Your task to perform on an android device: turn pop-ups on in chrome Image 0: 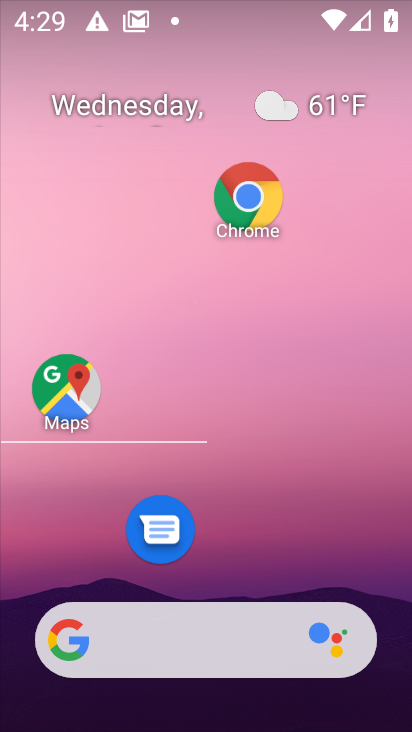
Step 0: drag from (262, 36) to (223, 0)
Your task to perform on an android device: turn pop-ups on in chrome Image 1: 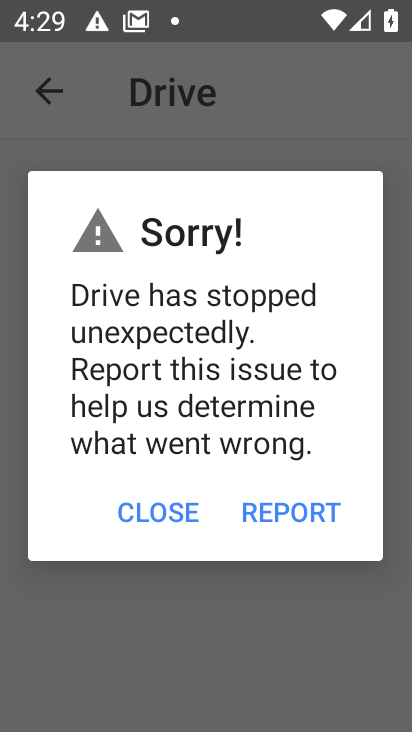
Step 1: press home button
Your task to perform on an android device: turn pop-ups on in chrome Image 2: 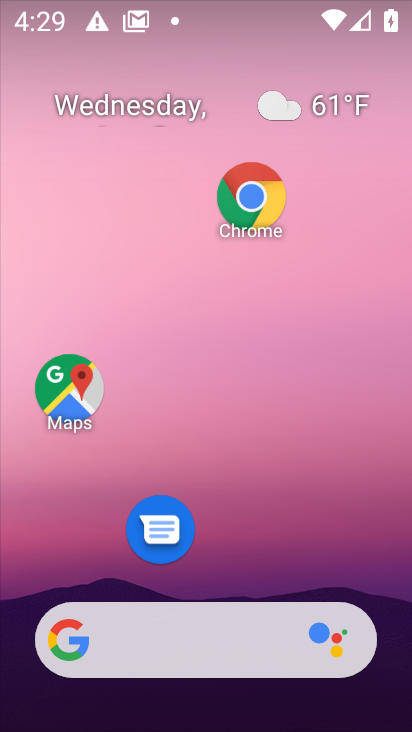
Step 2: click (267, 217)
Your task to perform on an android device: turn pop-ups on in chrome Image 3: 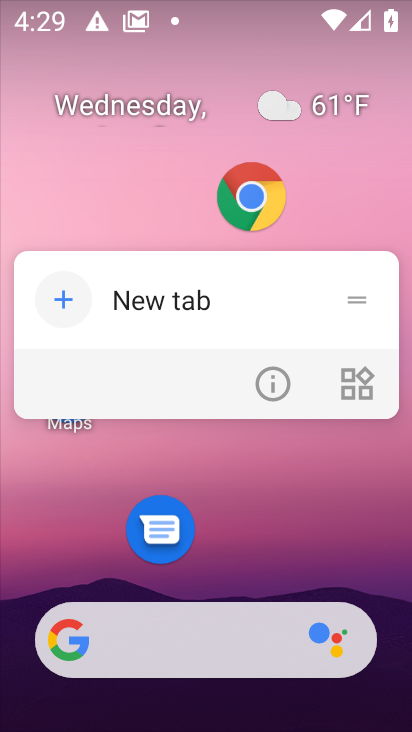
Step 3: click (249, 207)
Your task to perform on an android device: turn pop-ups on in chrome Image 4: 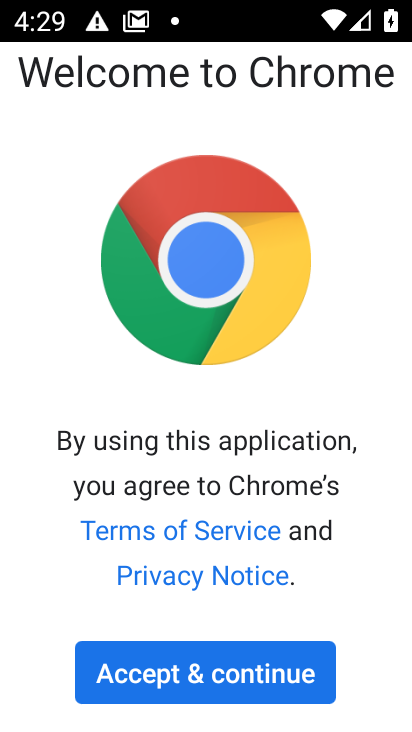
Step 4: click (267, 679)
Your task to perform on an android device: turn pop-ups on in chrome Image 5: 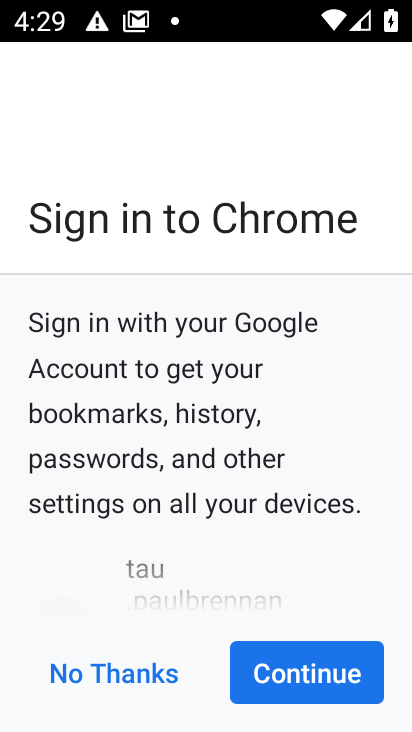
Step 5: click (267, 666)
Your task to perform on an android device: turn pop-ups on in chrome Image 6: 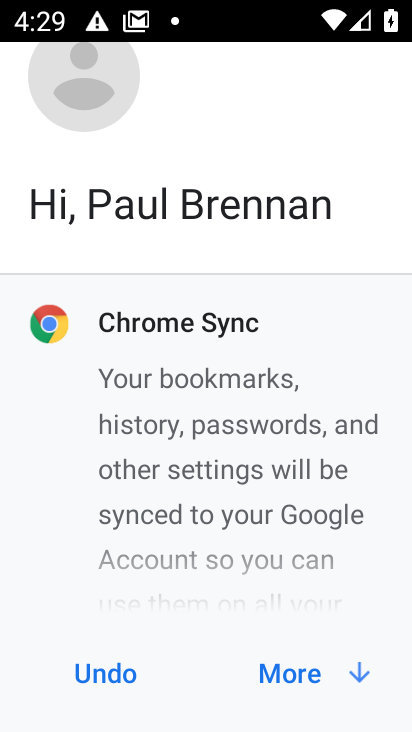
Step 6: click (316, 669)
Your task to perform on an android device: turn pop-ups on in chrome Image 7: 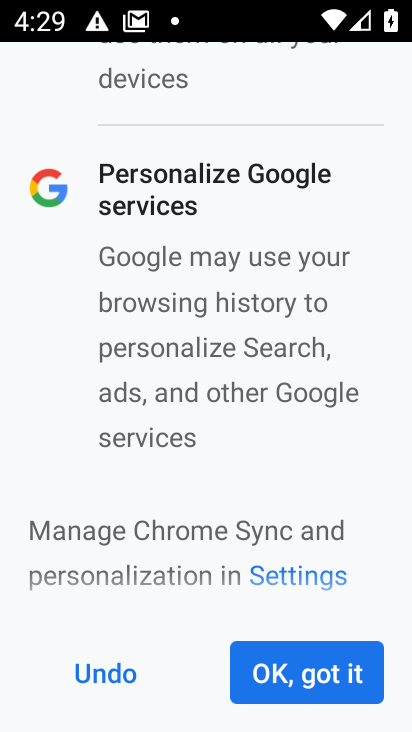
Step 7: click (316, 669)
Your task to perform on an android device: turn pop-ups on in chrome Image 8: 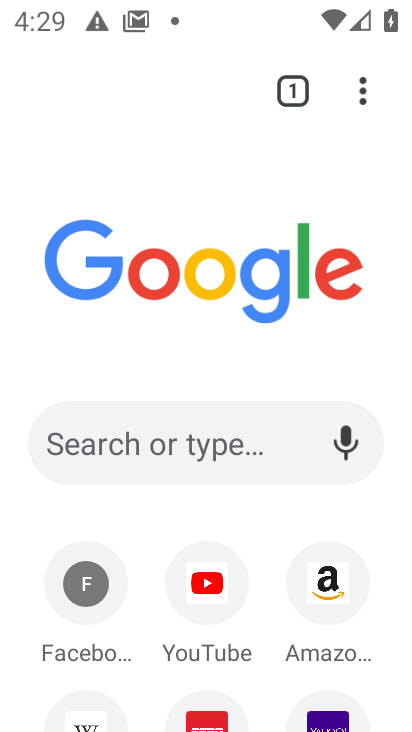
Step 8: click (353, 101)
Your task to perform on an android device: turn pop-ups on in chrome Image 9: 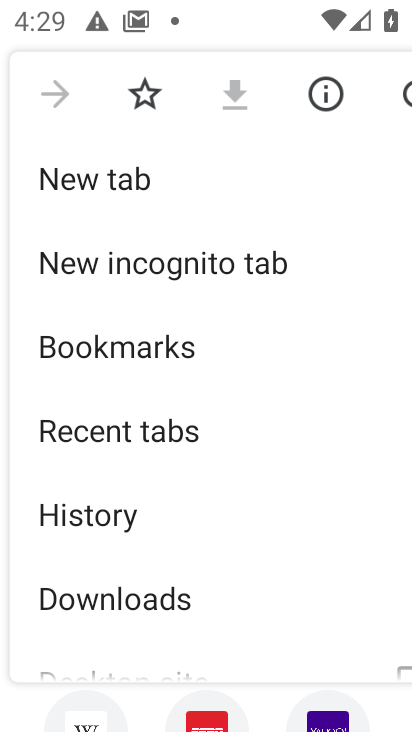
Step 9: drag from (130, 536) to (156, 213)
Your task to perform on an android device: turn pop-ups on in chrome Image 10: 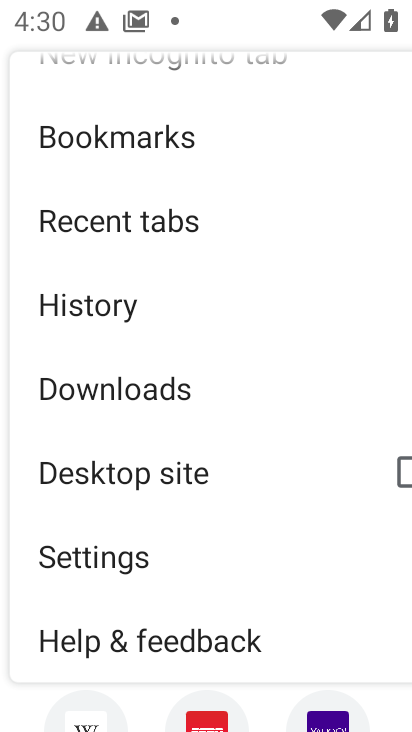
Step 10: click (135, 562)
Your task to perform on an android device: turn pop-ups on in chrome Image 11: 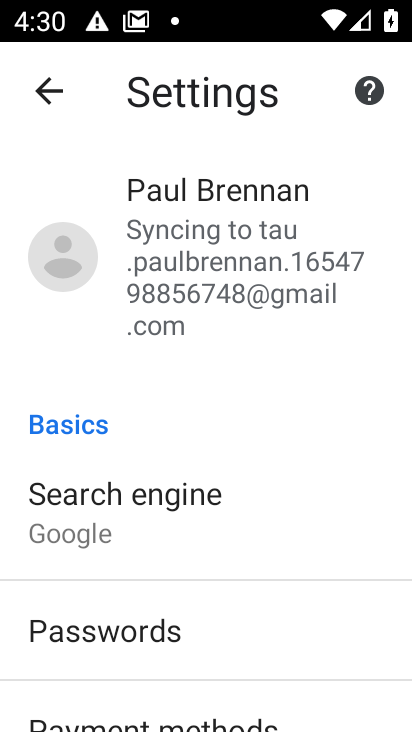
Step 11: drag from (169, 533) to (148, 355)
Your task to perform on an android device: turn pop-ups on in chrome Image 12: 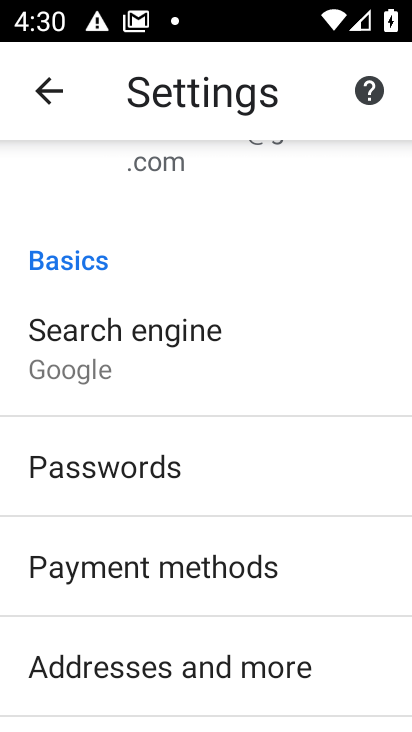
Step 12: drag from (202, 375) to (223, 238)
Your task to perform on an android device: turn pop-ups on in chrome Image 13: 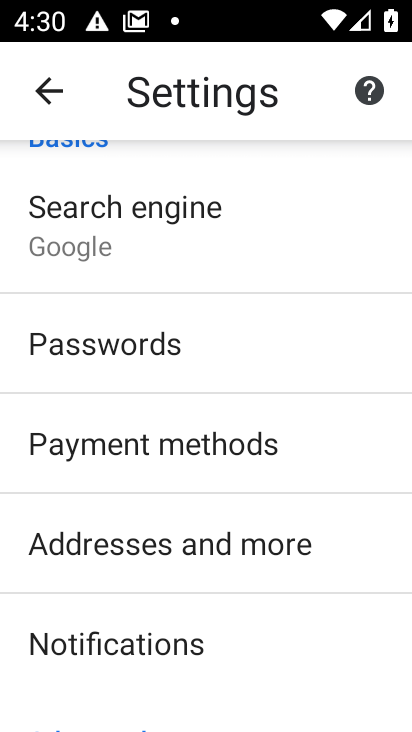
Step 13: drag from (205, 427) to (214, 307)
Your task to perform on an android device: turn pop-ups on in chrome Image 14: 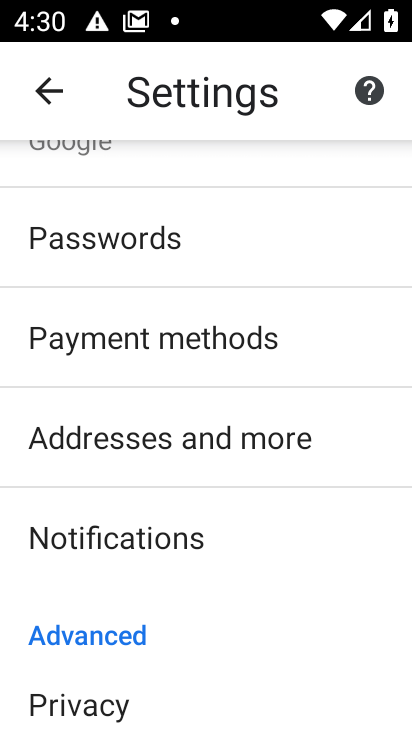
Step 14: drag from (141, 610) to (179, 147)
Your task to perform on an android device: turn pop-ups on in chrome Image 15: 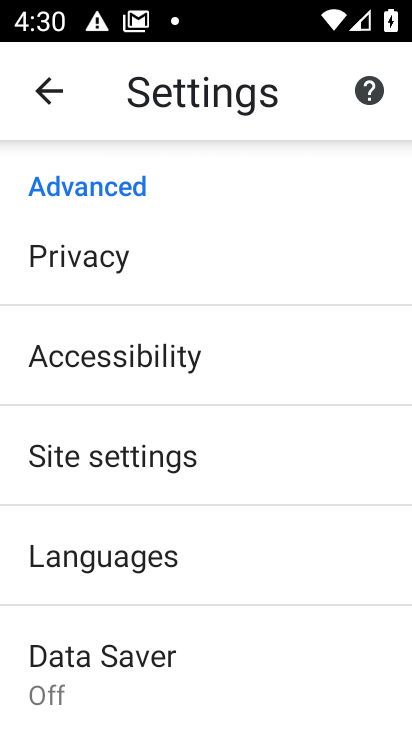
Step 15: click (150, 460)
Your task to perform on an android device: turn pop-ups on in chrome Image 16: 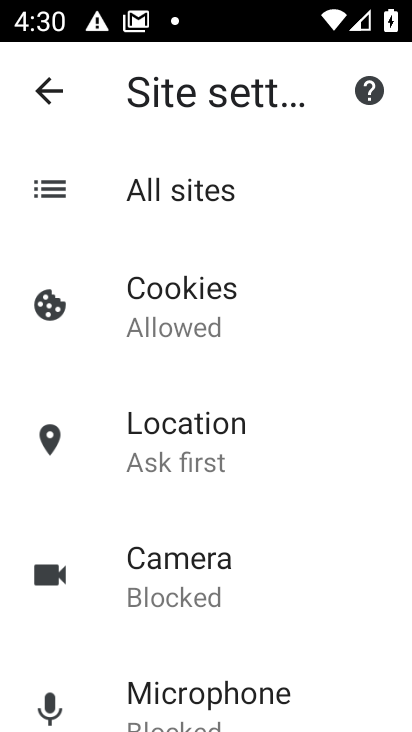
Step 16: drag from (189, 609) to (207, 281)
Your task to perform on an android device: turn pop-ups on in chrome Image 17: 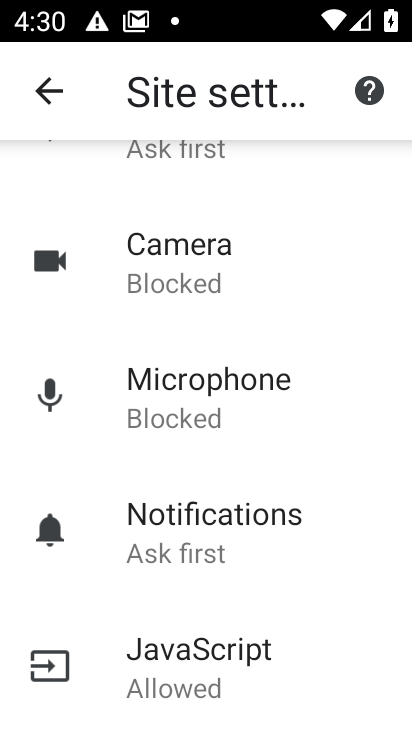
Step 17: drag from (181, 656) to (206, 212)
Your task to perform on an android device: turn pop-ups on in chrome Image 18: 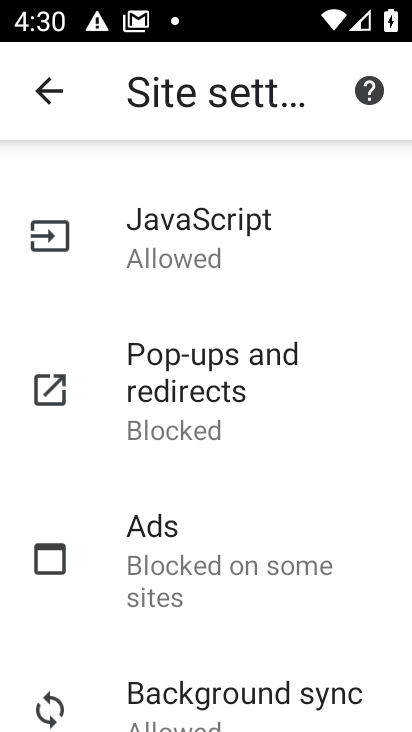
Step 18: click (166, 389)
Your task to perform on an android device: turn pop-ups on in chrome Image 19: 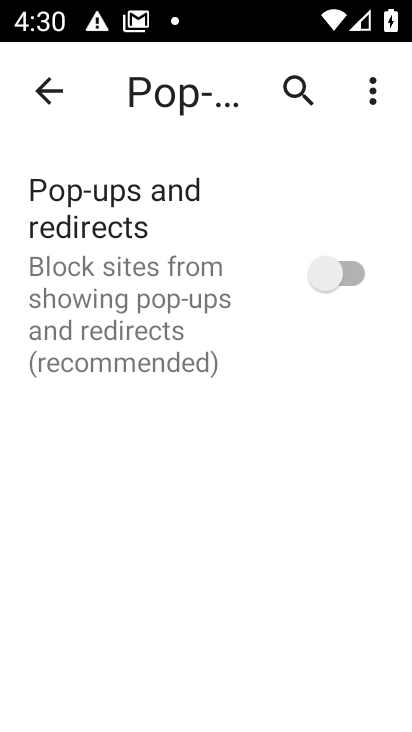
Step 19: click (337, 276)
Your task to perform on an android device: turn pop-ups on in chrome Image 20: 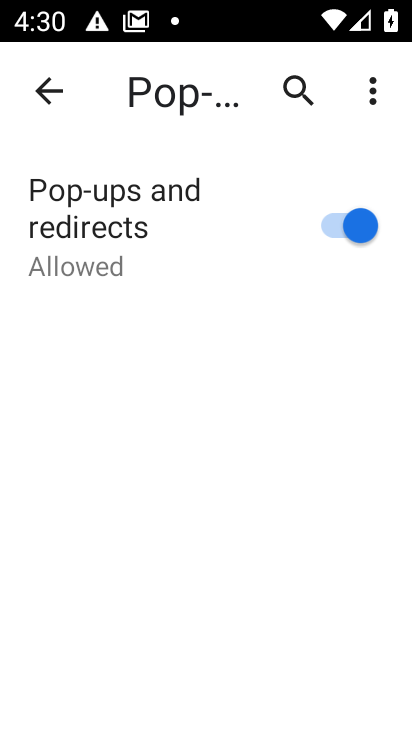
Step 20: task complete